Your task to perform on an android device: Go to accessibility settings Image 0: 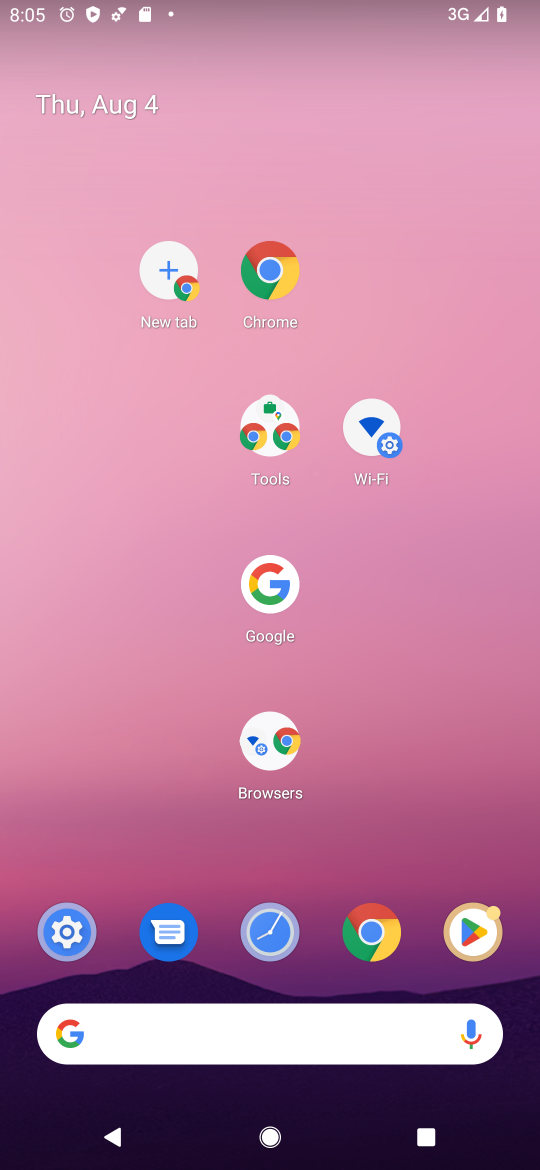
Step 0: drag from (235, 539) to (329, 77)
Your task to perform on an android device: Go to accessibility settings Image 1: 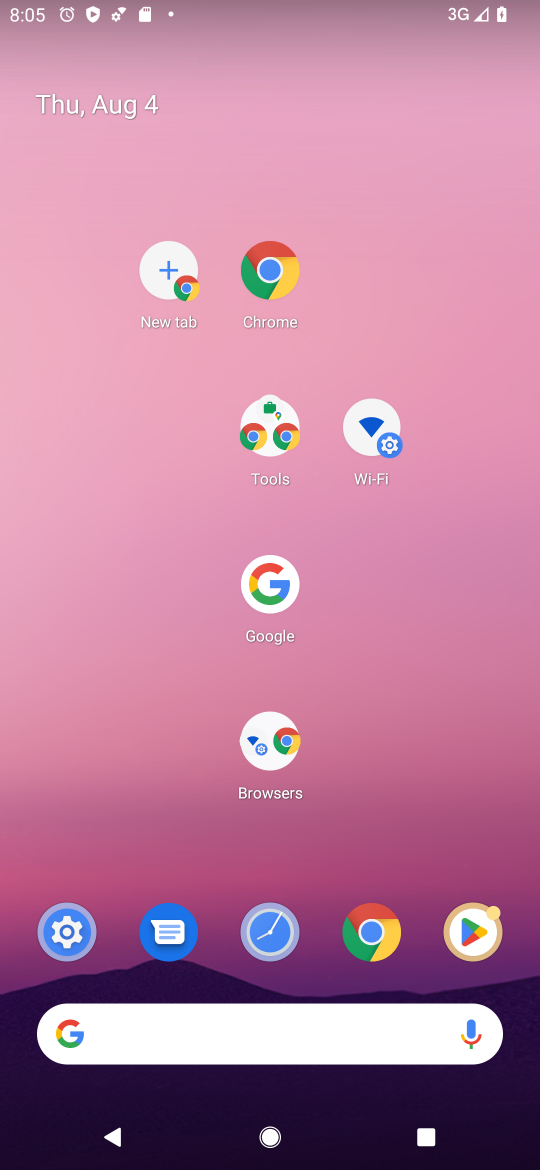
Step 1: press back button
Your task to perform on an android device: Go to accessibility settings Image 2: 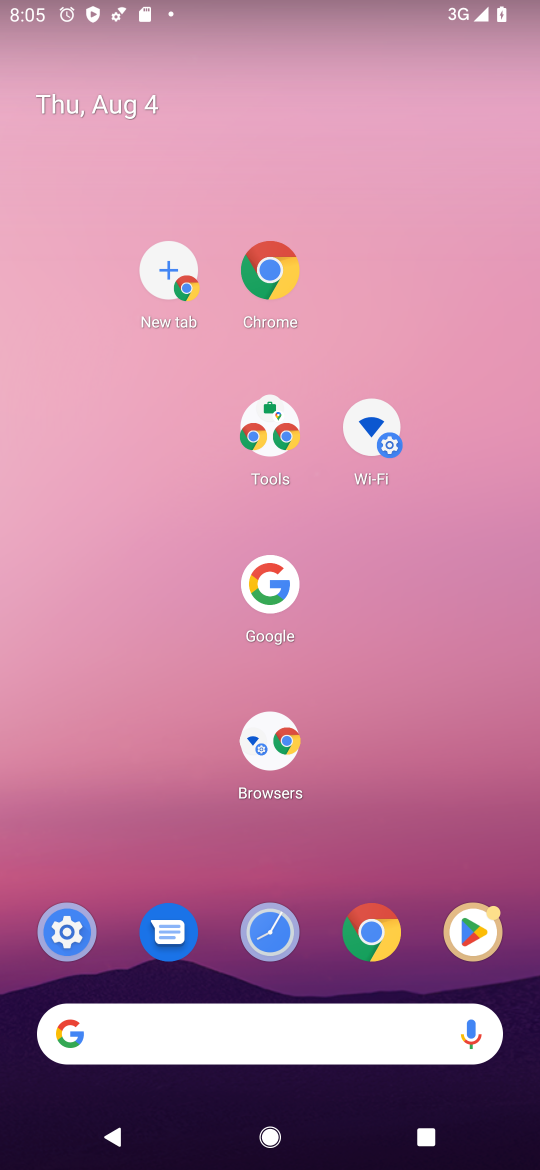
Step 2: drag from (277, 954) to (205, 265)
Your task to perform on an android device: Go to accessibility settings Image 3: 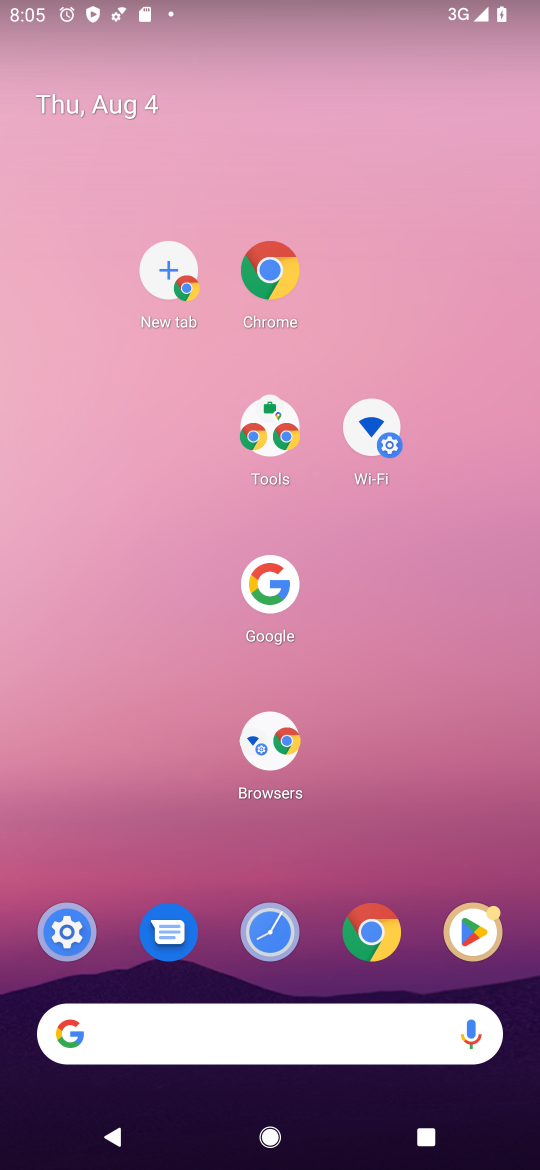
Step 3: drag from (273, 163) to (273, 71)
Your task to perform on an android device: Go to accessibility settings Image 4: 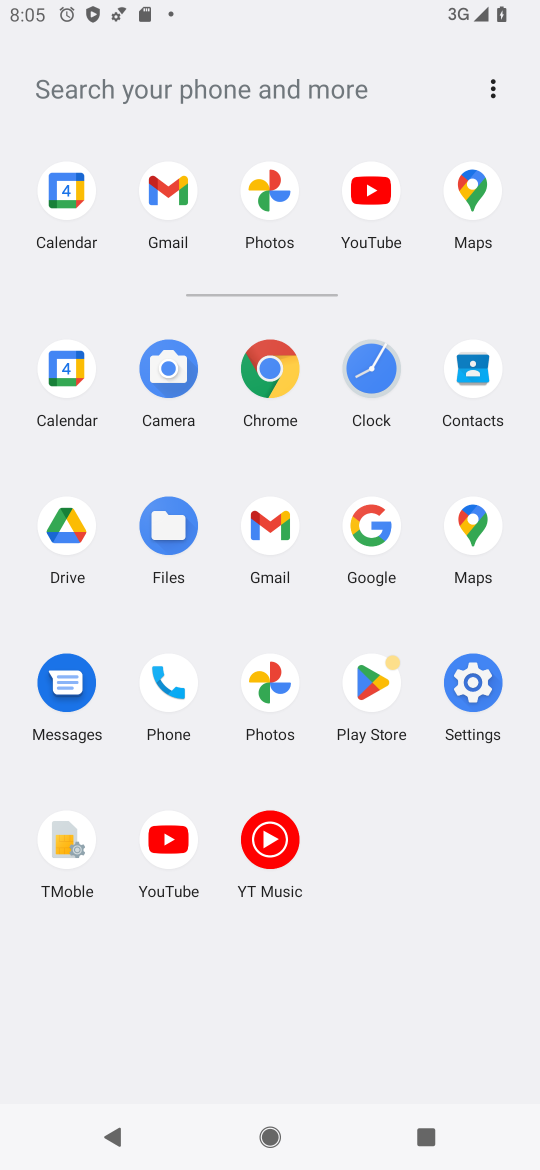
Step 4: click (461, 681)
Your task to perform on an android device: Go to accessibility settings Image 5: 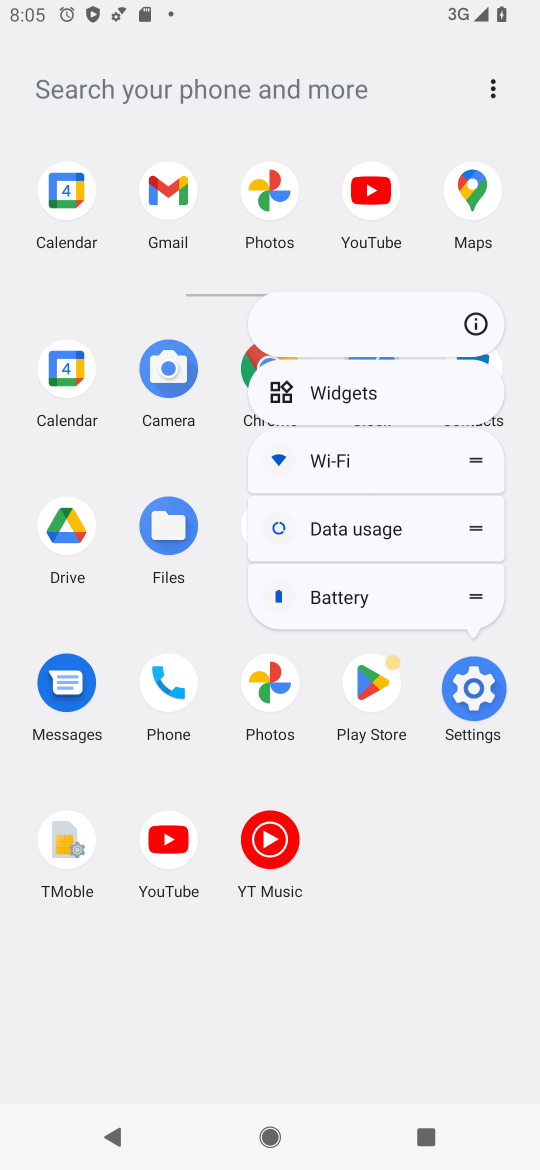
Step 5: click (462, 687)
Your task to perform on an android device: Go to accessibility settings Image 6: 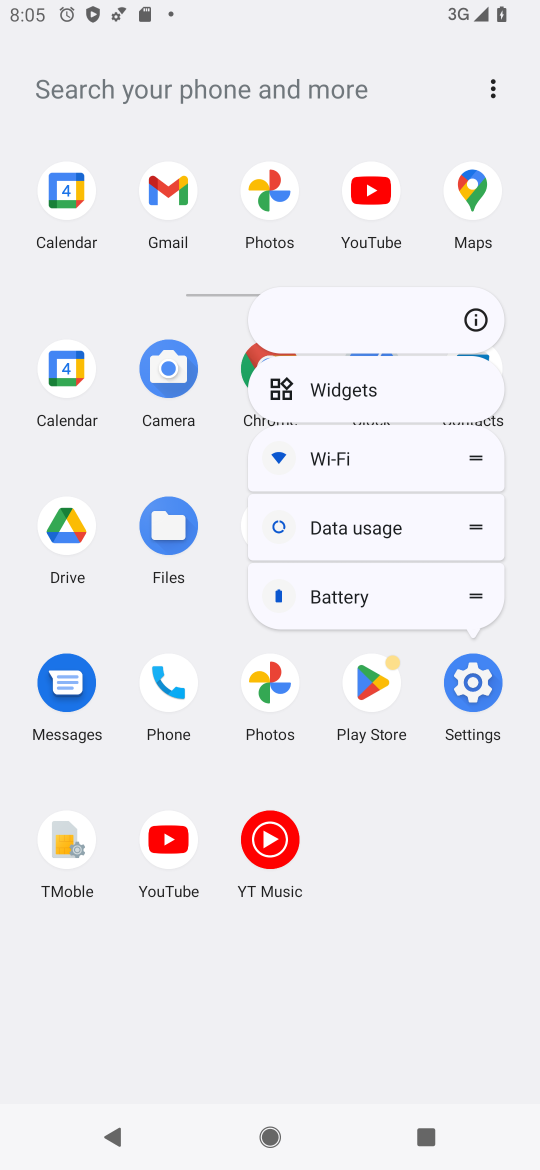
Step 6: click (461, 677)
Your task to perform on an android device: Go to accessibility settings Image 7: 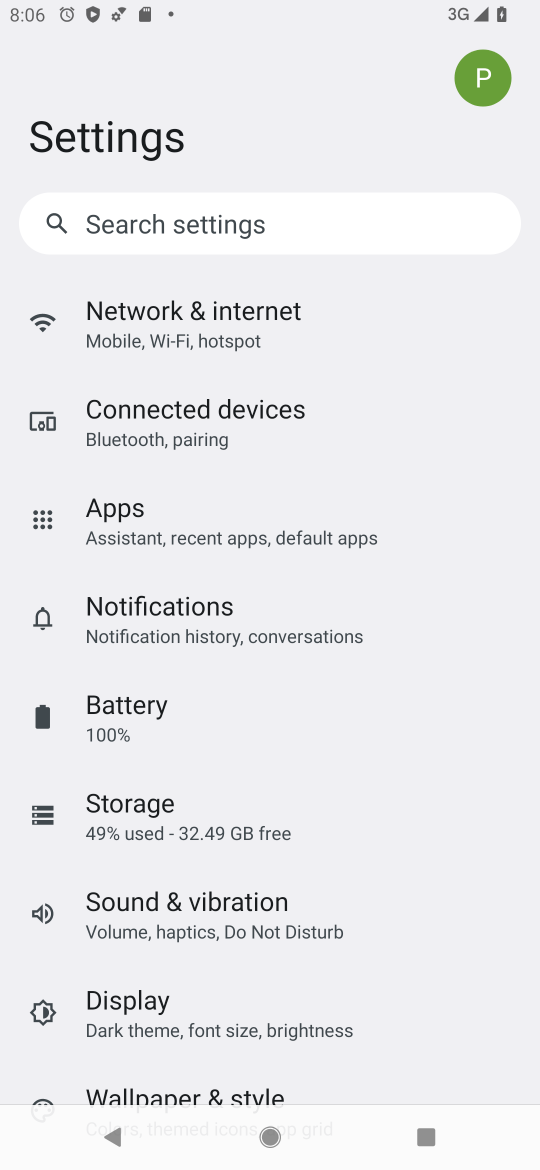
Step 7: drag from (274, 784) to (239, 353)
Your task to perform on an android device: Go to accessibility settings Image 8: 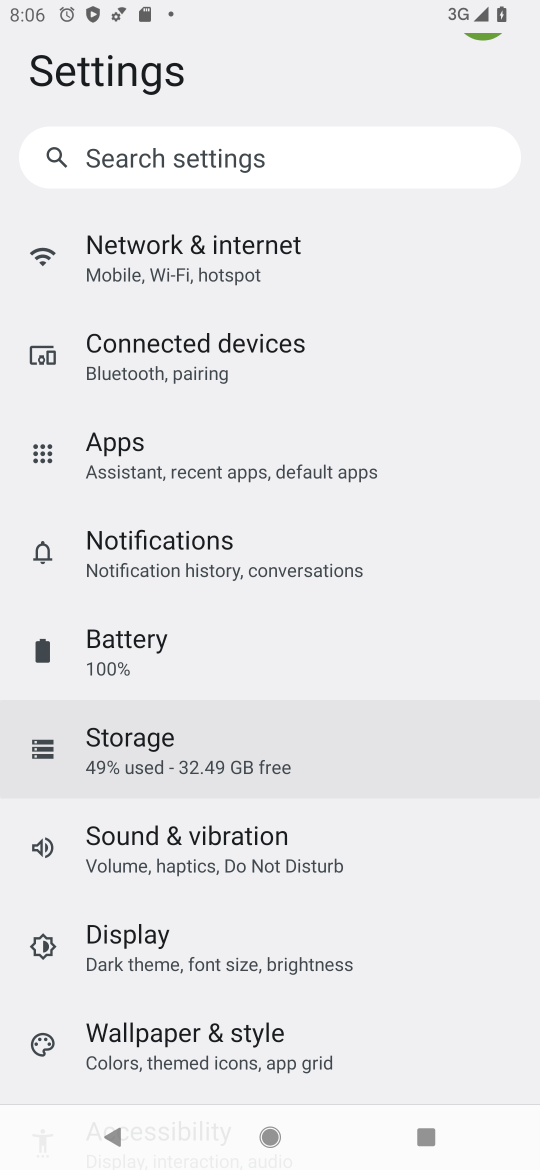
Step 8: drag from (268, 674) to (211, 395)
Your task to perform on an android device: Go to accessibility settings Image 9: 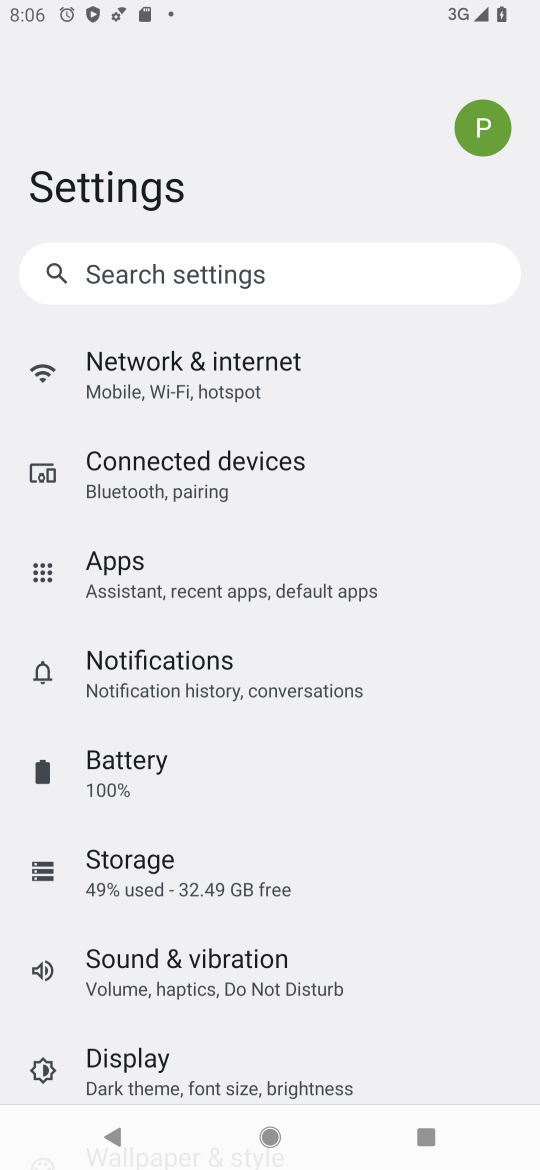
Step 9: drag from (242, 769) to (242, 444)
Your task to perform on an android device: Go to accessibility settings Image 10: 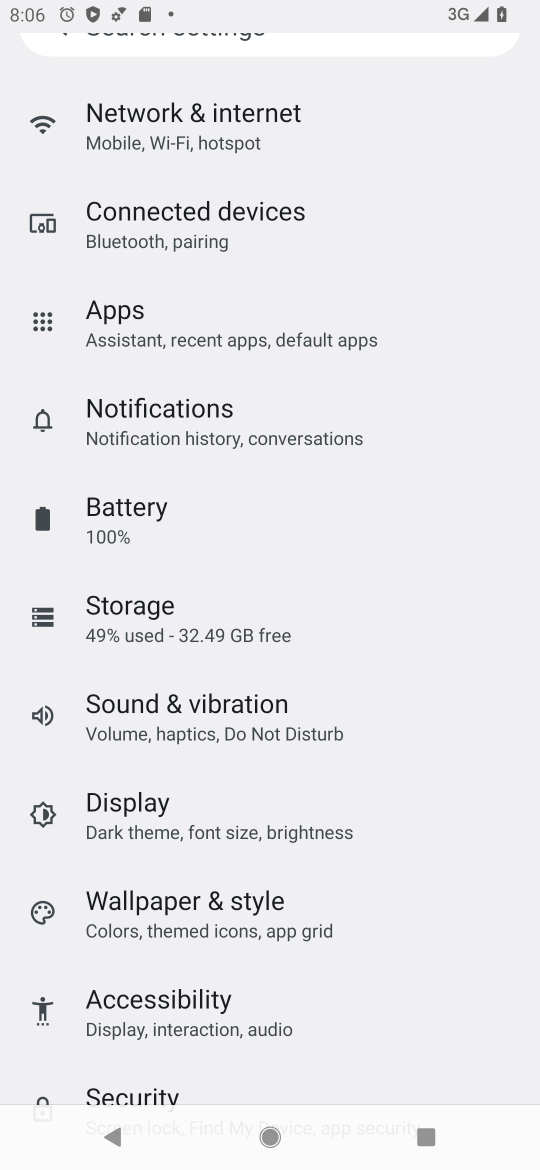
Step 10: drag from (280, 781) to (276, 520)
Your task to perform on an android device: Go to accessibility settings Image 11: 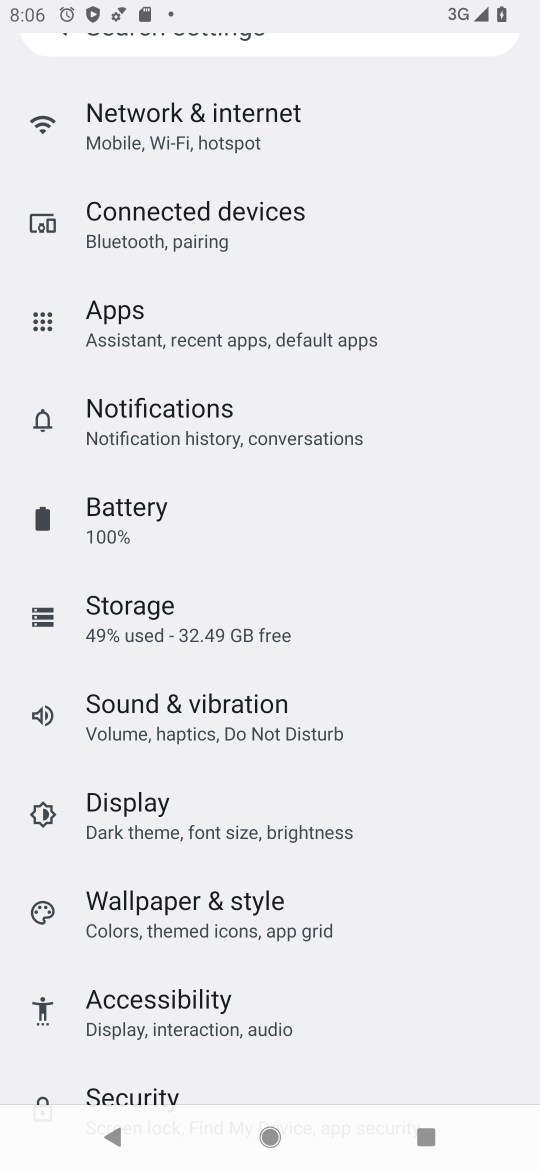
Step 11: click (159, 1010)
Your task to perform on an android device: Go to accessibility settings Image 12: 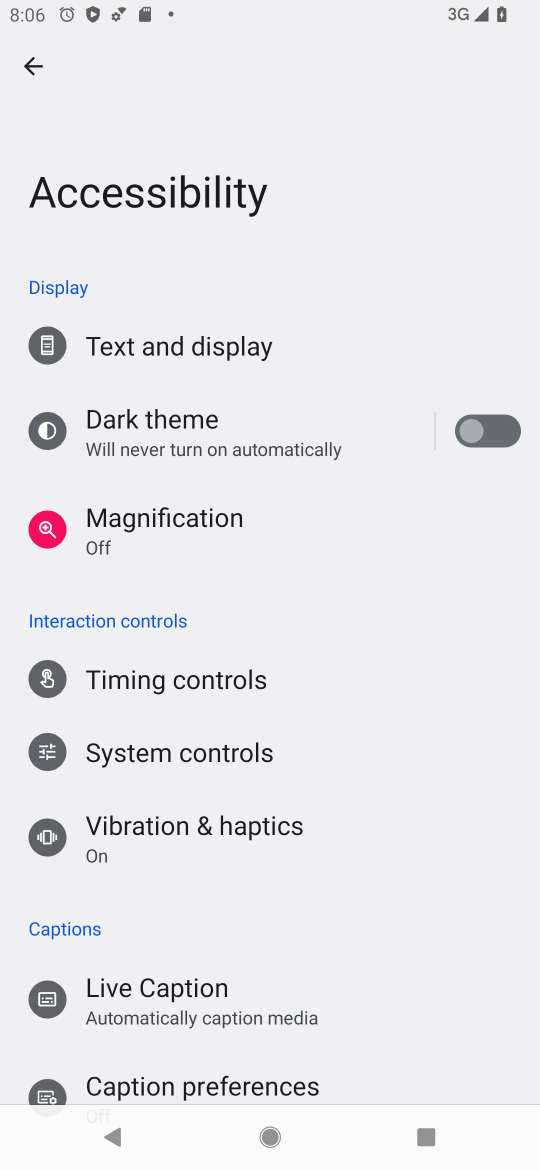
Step 12: task complete